Your task to perform on an android device: change the clock style Image 0: 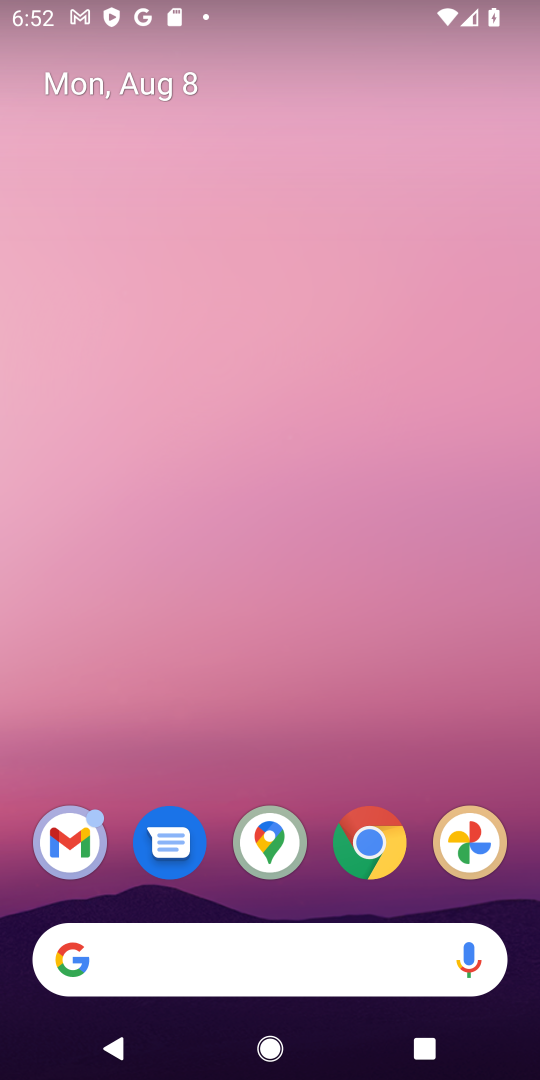
Step 0: drag from (317, 883) to (490, 66)
Your task to perform on an android device: change the clock style Image 1: 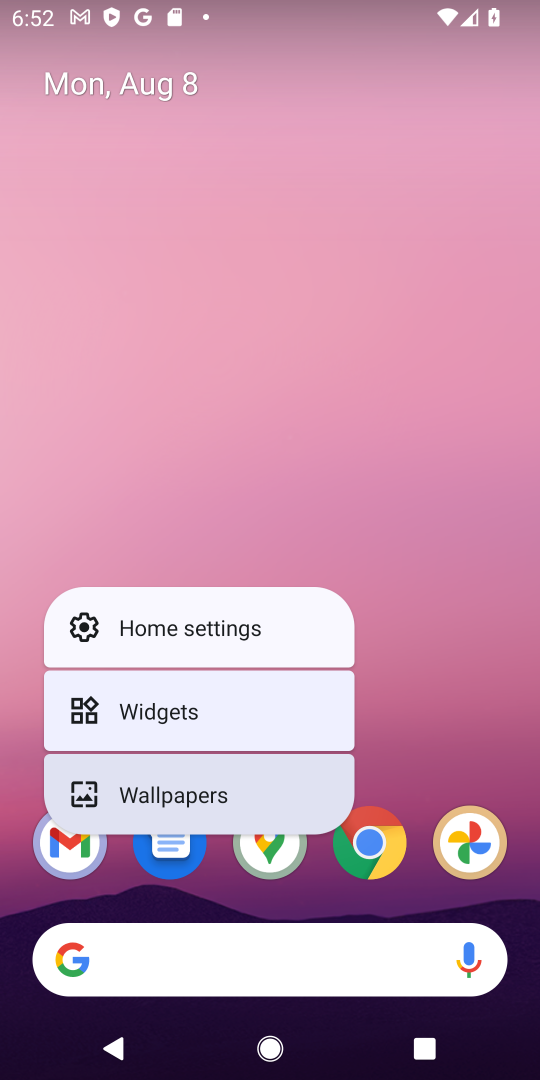
Step 1: click (435, 632)
Your task to perform on an android device: change the clock style Image 2: 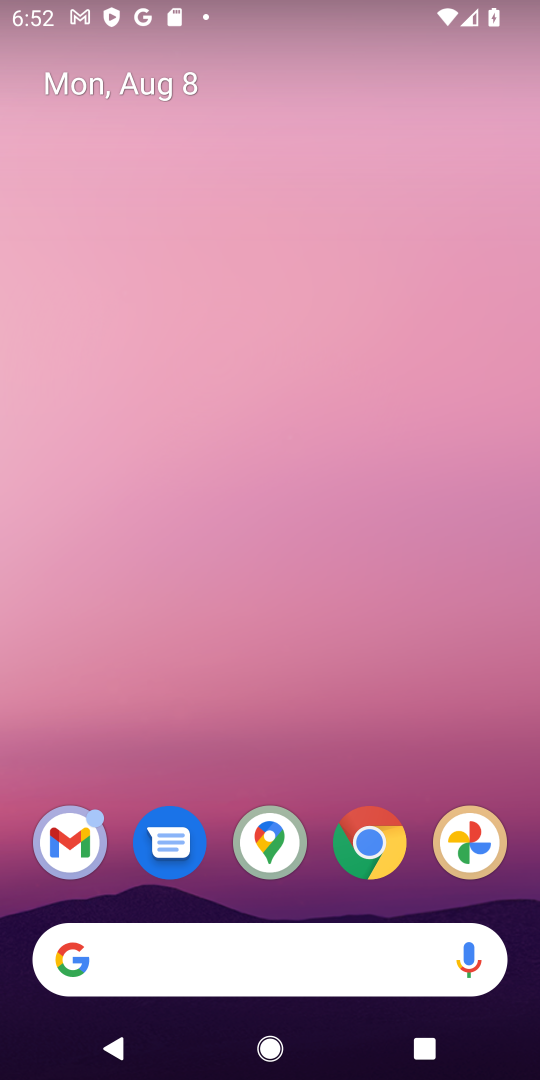
Step 2: drag from (306, 891) to (354, 118)
Your task to perform on an android device: change the clock style Image 3: 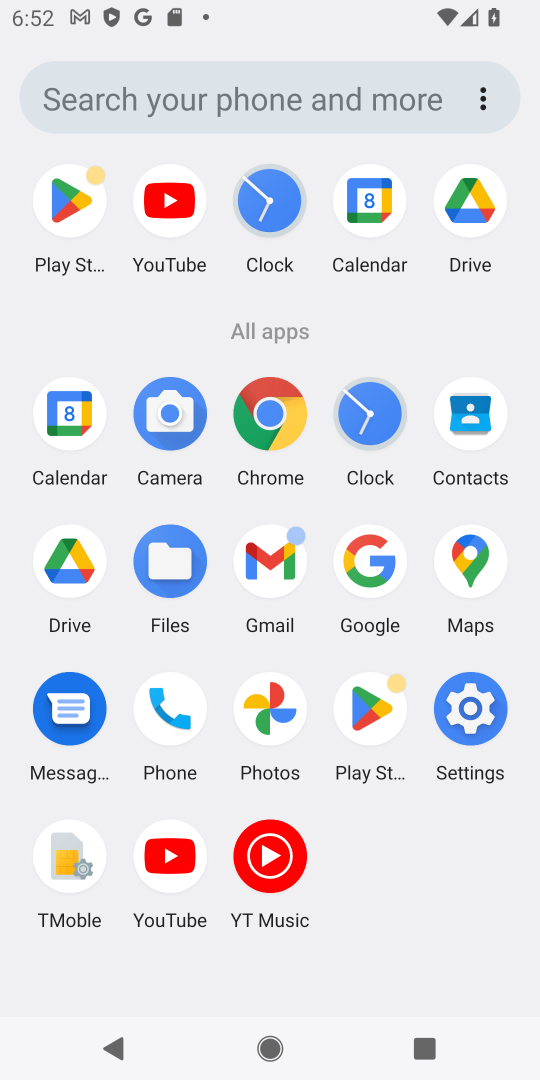
Step 3: click (372, 393)
Your task to perform on an android device: change the clock style Image 4: 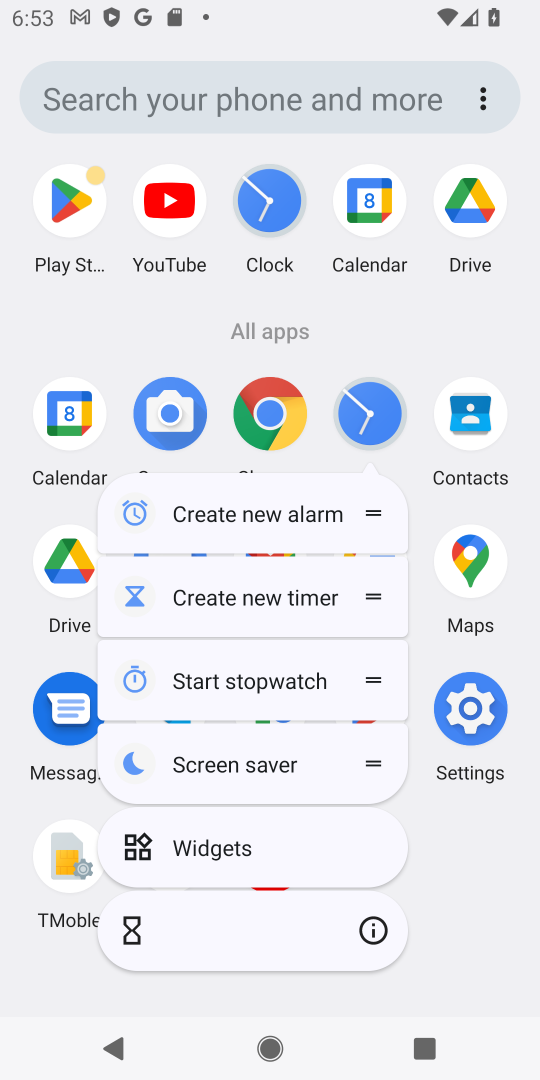
Step 4: click (374, 395)
Your task to perform on an android device: change the clock style Image 5: 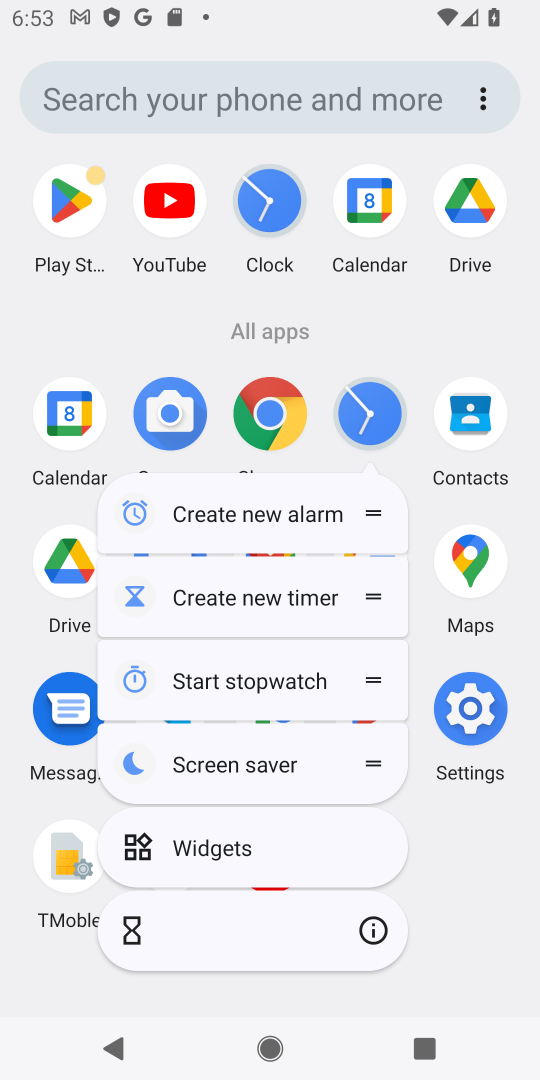
Step 5: click (374, 395)
Your task to perform on an android device: change the clock style Image 6: 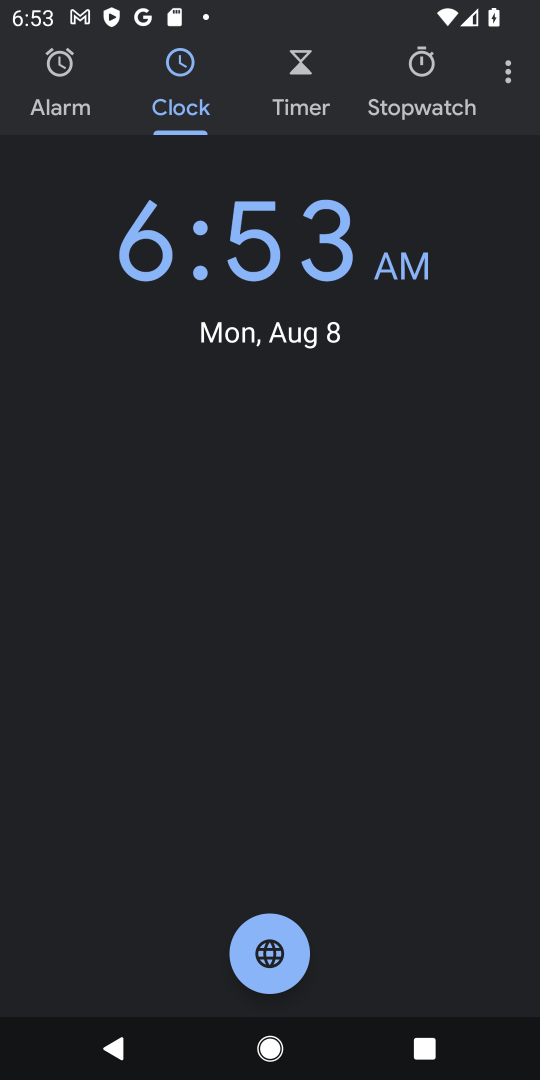
Step 6: click (508, 65)
Your task to perform on an android device: change the clock style Image 7: 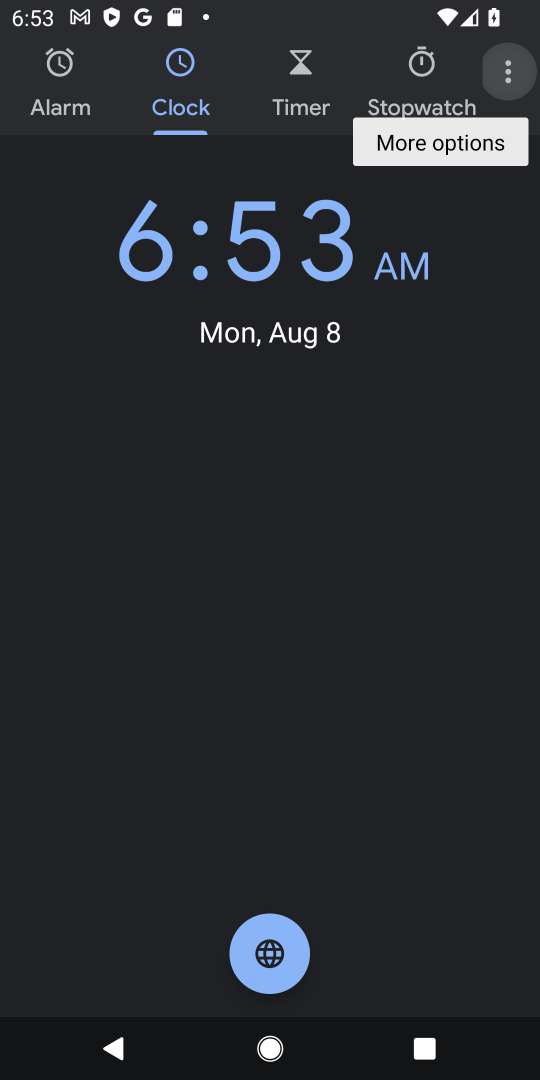
Step 7: click (508, 65)
Your task to perform on an android device: change the clock style Image 8: 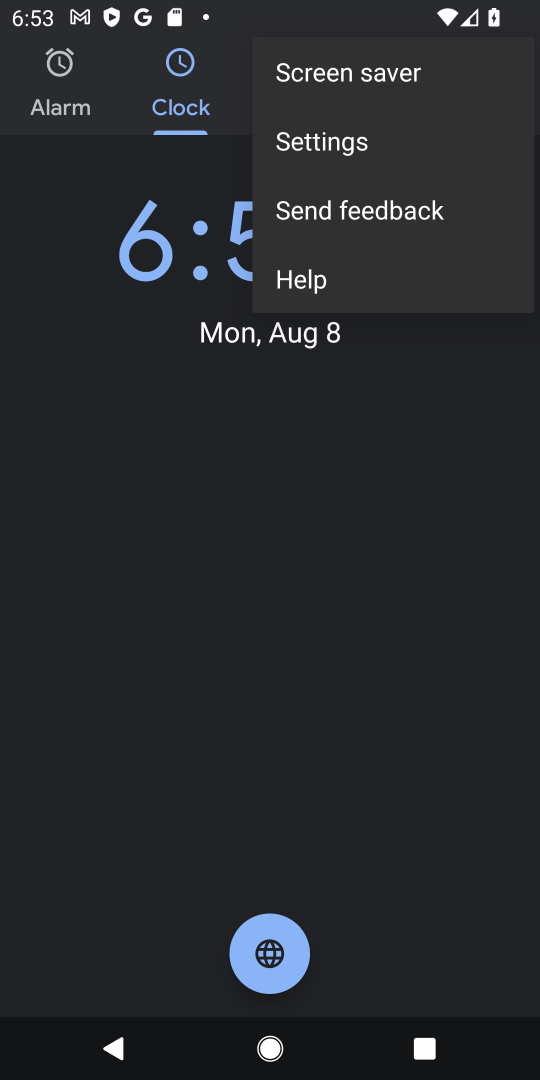
Step 8: click (347, 138)
Your task to perform on an android device: change the clock style Image 9: 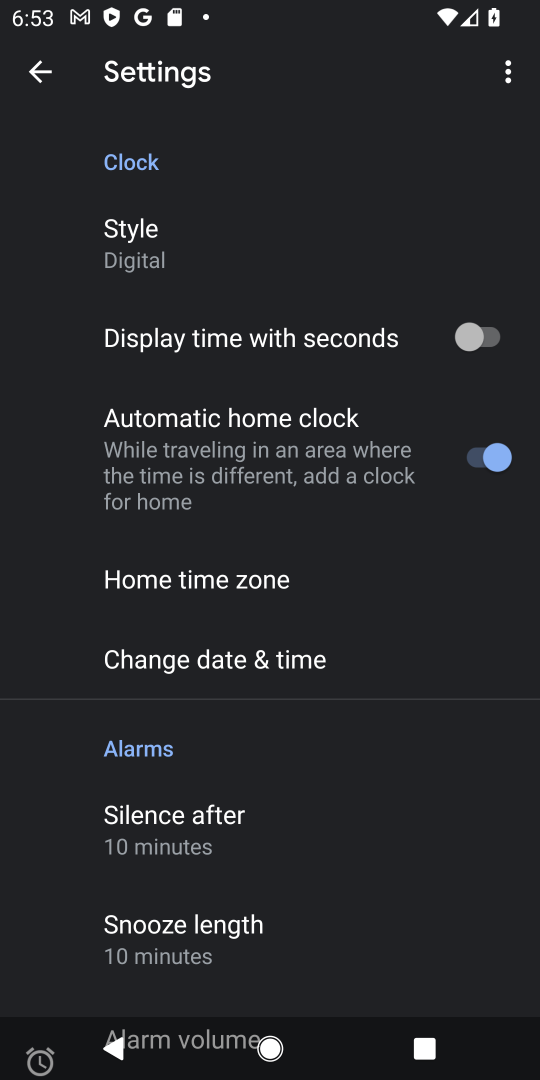
Step 9: drag from (318, 810) to (369, 255)
Your task to perform on an android device: change the clock style Image 10: 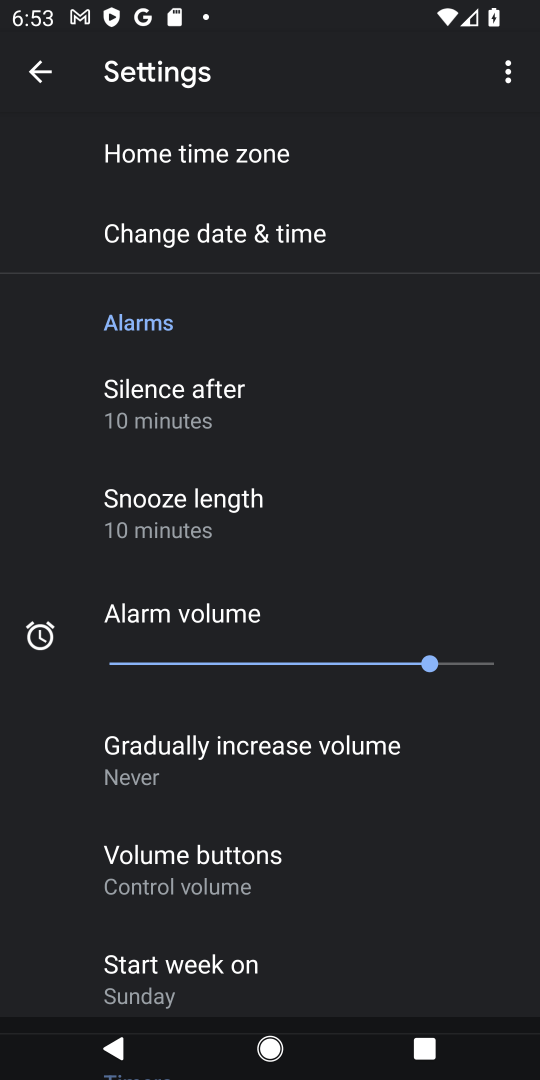
Step 10: drag from (342, 777) to (420, 249)
Your task to perform on an android device: change the clock style Image 11: 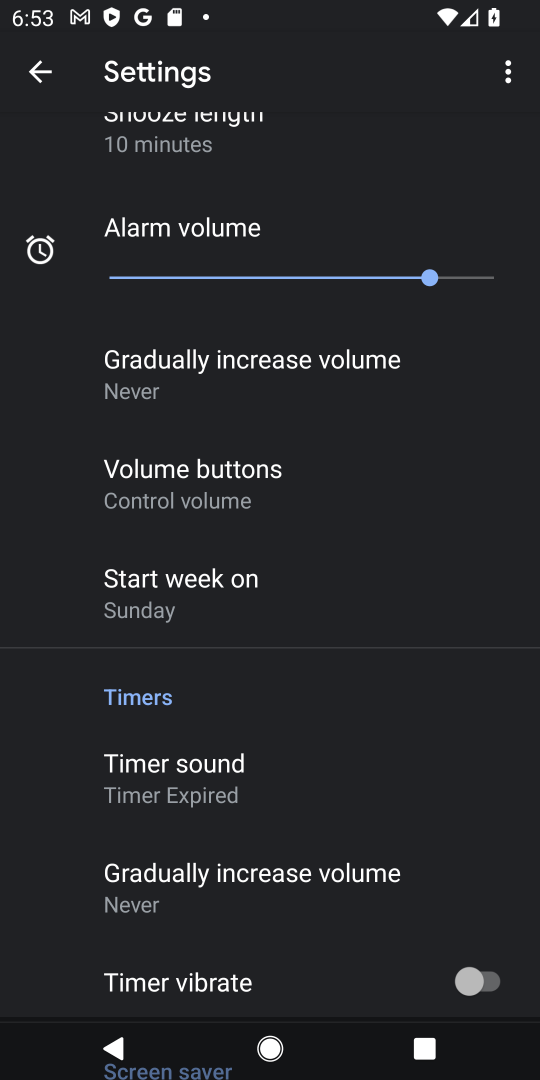
Step 11: drag from (298, 908) to (370, 576)
Your task to perform on an android device: change the clock style Image 12: 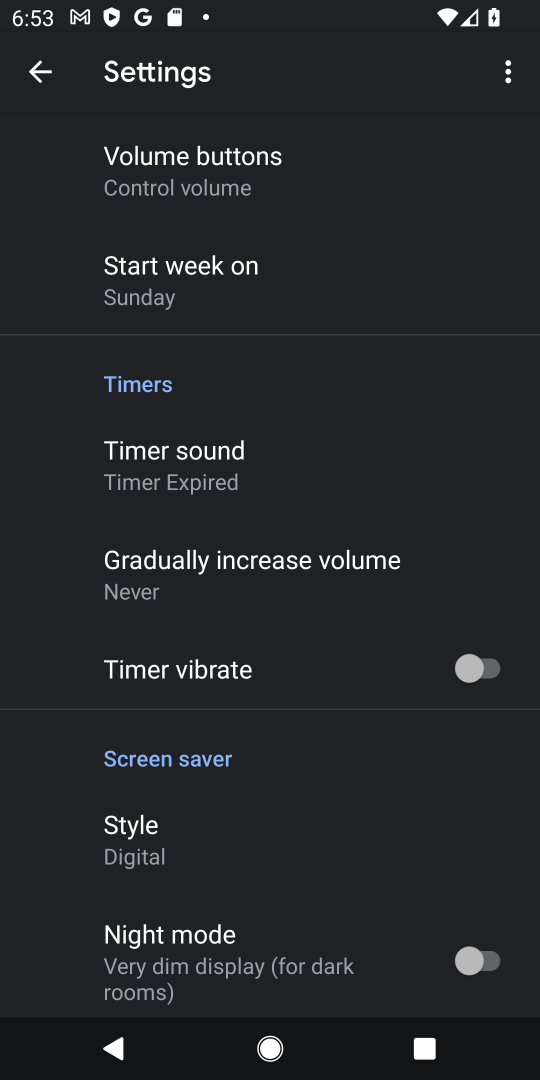
Step 12: drag from (332, 855) to (360, 510)
Your task to perform on an android device: change the clock style Image 13: 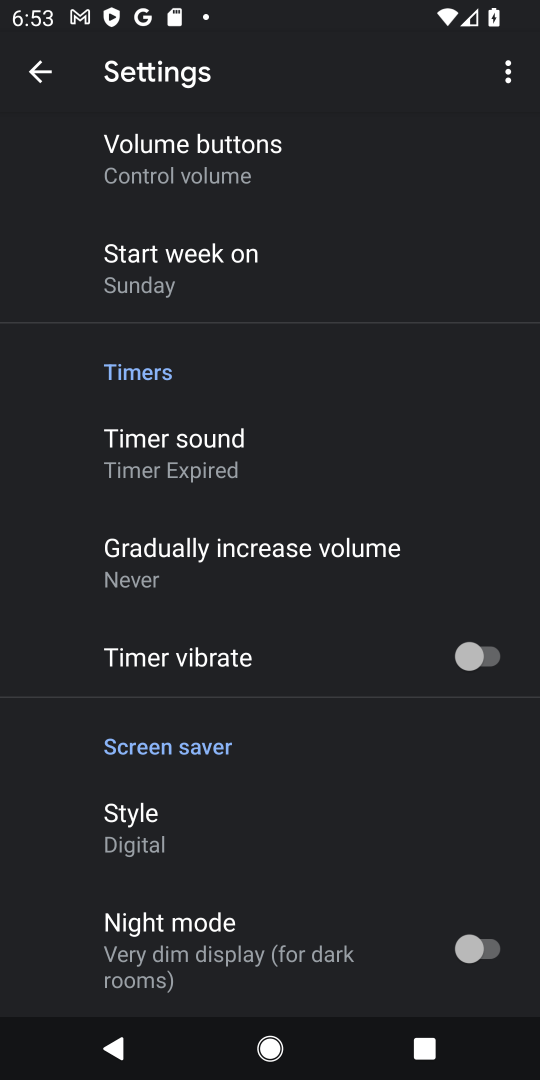
Step 13: drag from (415, 261) to (341, 775)
Your task to perform on an android device: change the clock style Image 14: 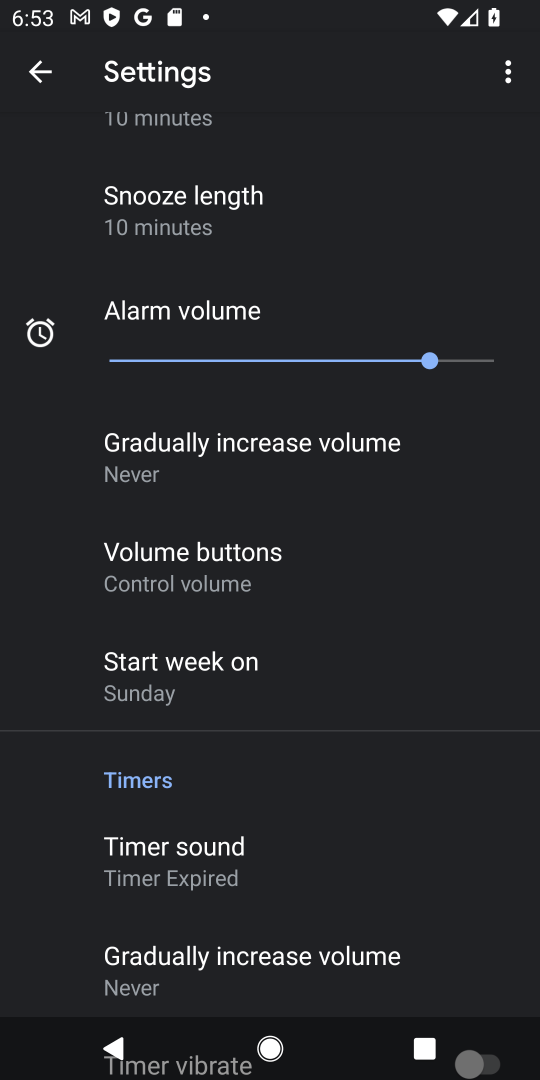
Step 14: drag from (398, 246) to (301, 850)
Your task to perform on an android device: change the clock style Image 15: 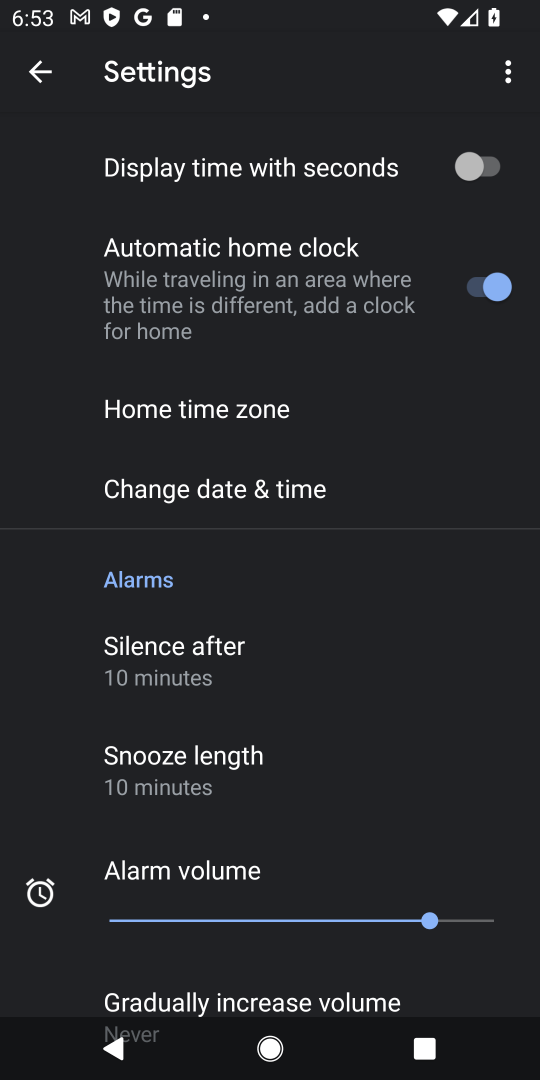
Step 15: drag from (347, 187) to (294, 703)
Your task to perform on an android device: change the clock style Image 16: 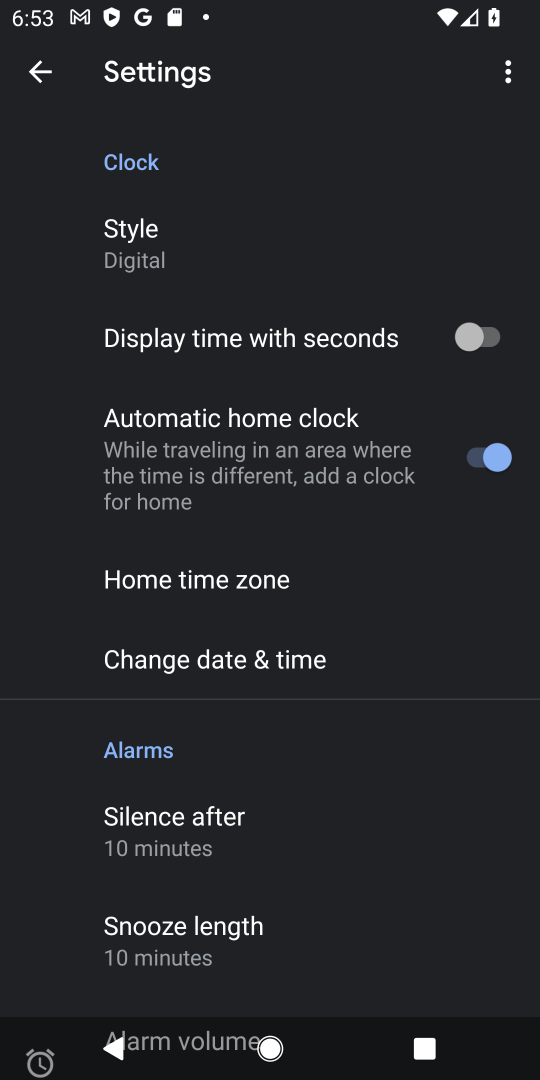
Step 16: click (164, 241)
Your task to perform on an android device: change the clock style Image 17: 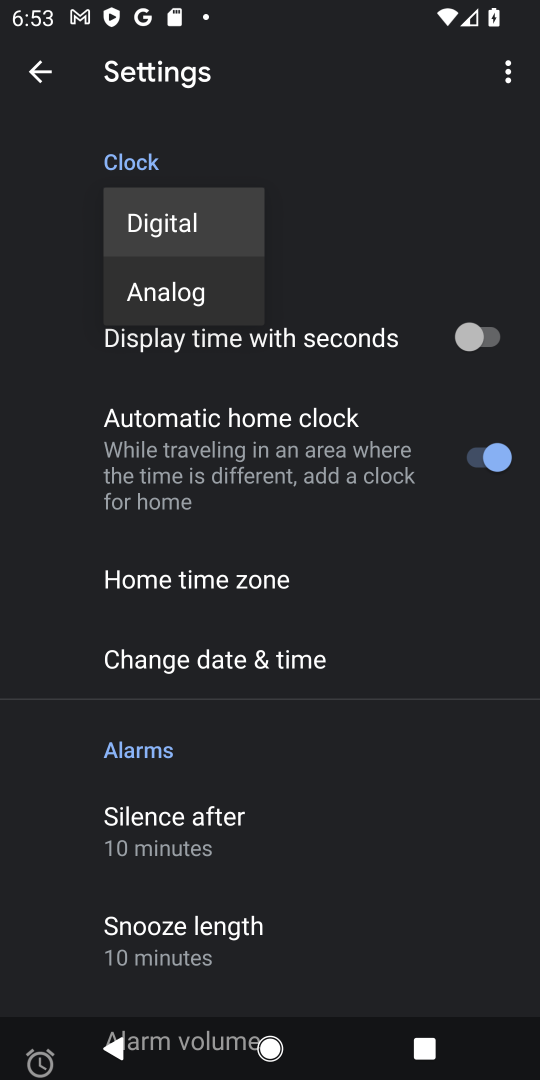
Step 17: click (166, 285)
Your task to perform on an android device: change the clock style Image 18: 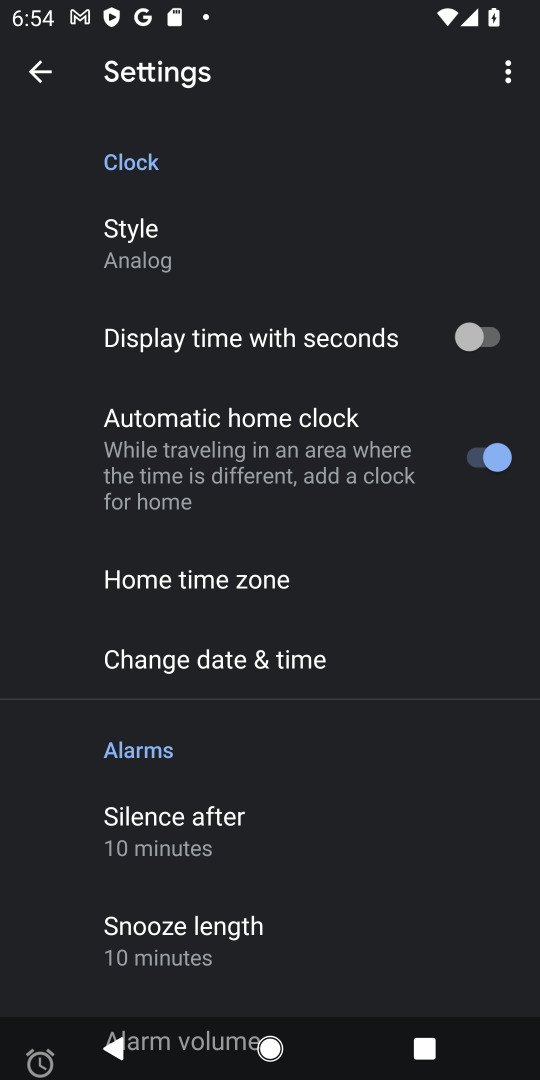
Step 18: task complete